Your task to perform on an android device: What's on my calendar today? Image 0: 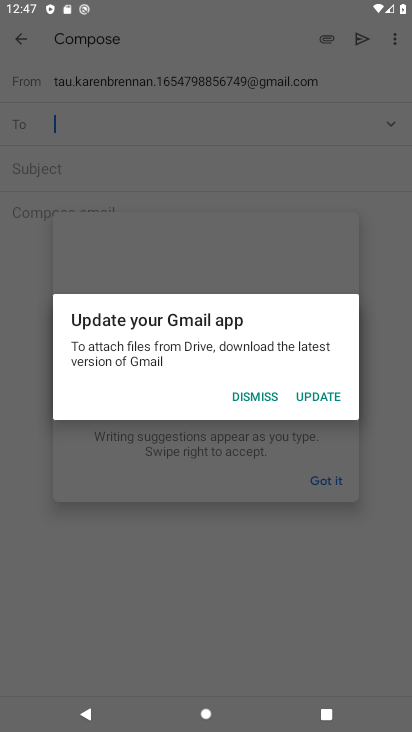
Step 0: click (298, 387)
Your task to perform on an android device: What's on my calendar today? Image 1: 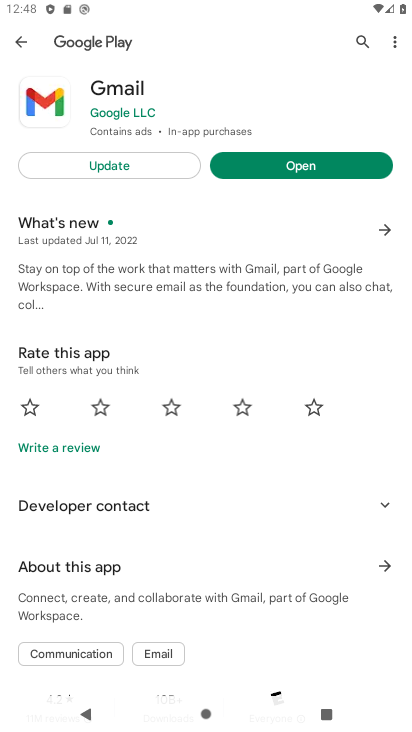
Step 1: click (113, 173)
Your task to perform on an android device: What's on my calendar today? Image 2: 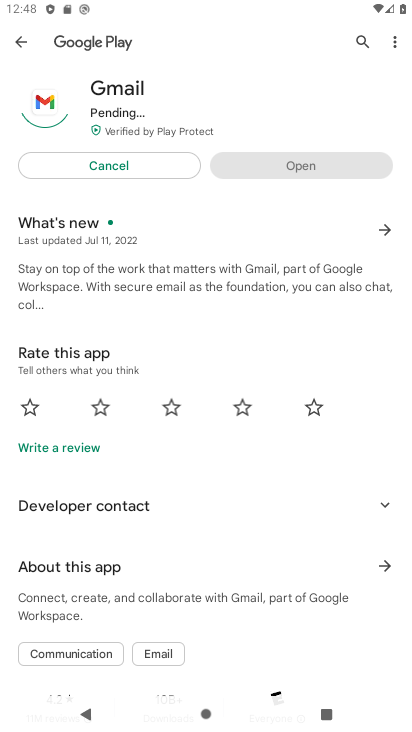
Step 2: press home button
Your task to perform on an android device: What's on my calendar today? Image 3: 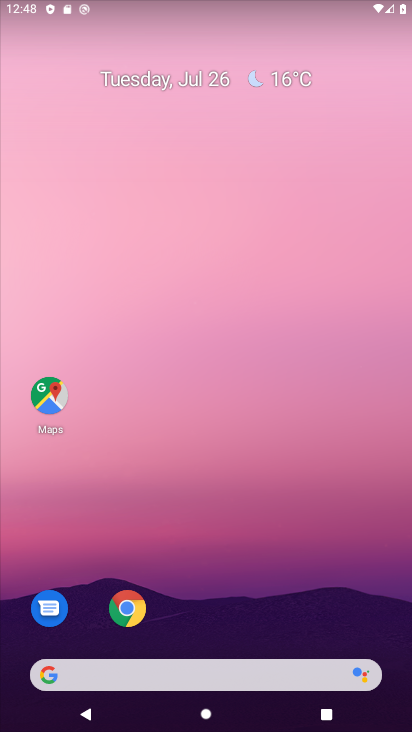
Step 3: drag from (253, 621) to (241, 179)
Your task to perform on an android device: What's on my calendar today? Image 4: 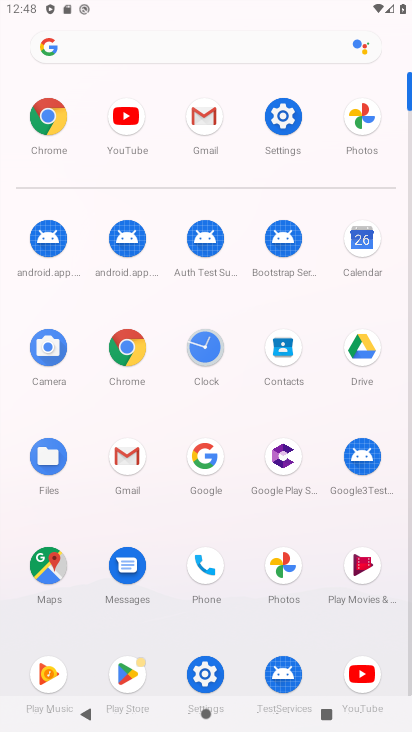
Step 4: click (376, 269)
Your task to perform on an android device: What's on my calendar today? Image 5: 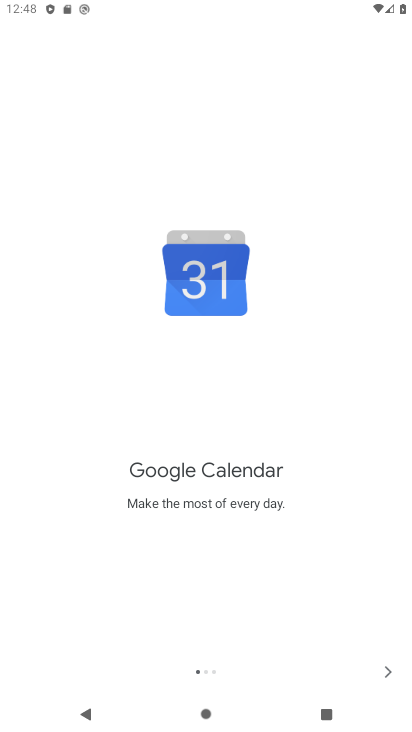
Step 5: click (379, 663)
Your task to perform on an android device: What's on my calendar today? Image 6: 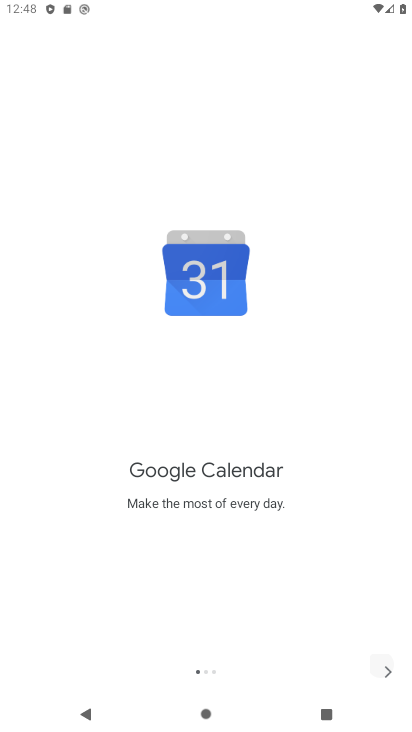
Step 6: click (379, 663)
Your task to perform on an android device: What's on my calendar today? Image 7: 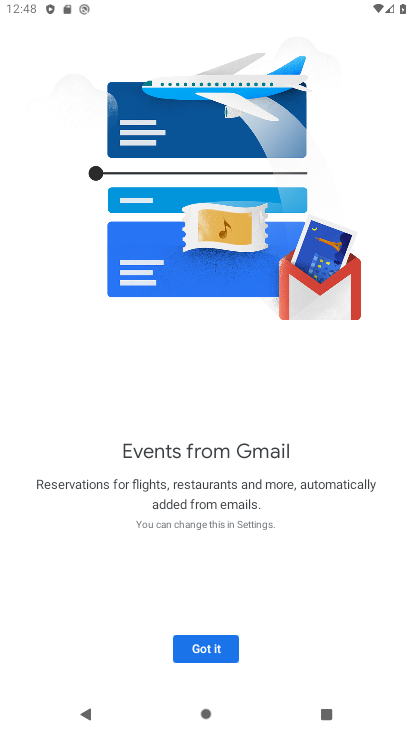
Step 7: click (379, 663)
Your task to perform on an android device: What's on my calendar today? Image 8: 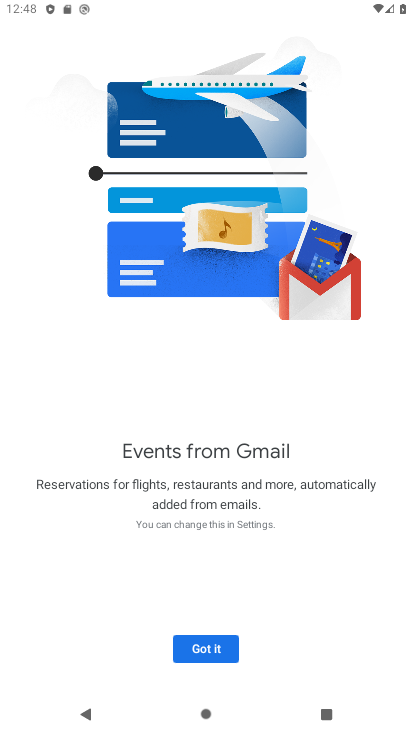
Step 8: click (237, 647)
Your task to perform on an android device: What's on my calendar today? Image 9: 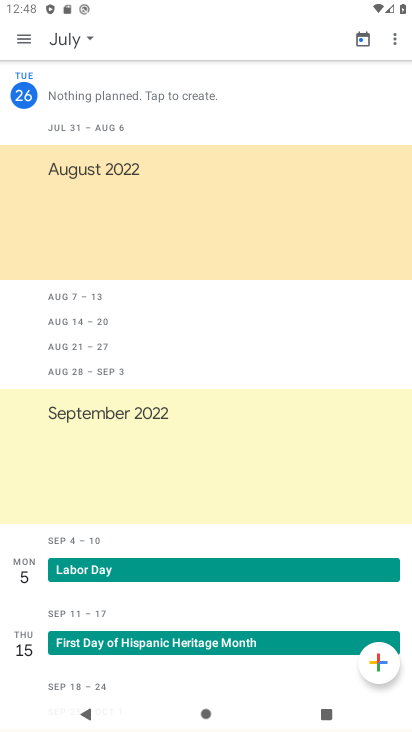
Step 9: task complete